Your task to perform on an android device: Check the weather Image 0: 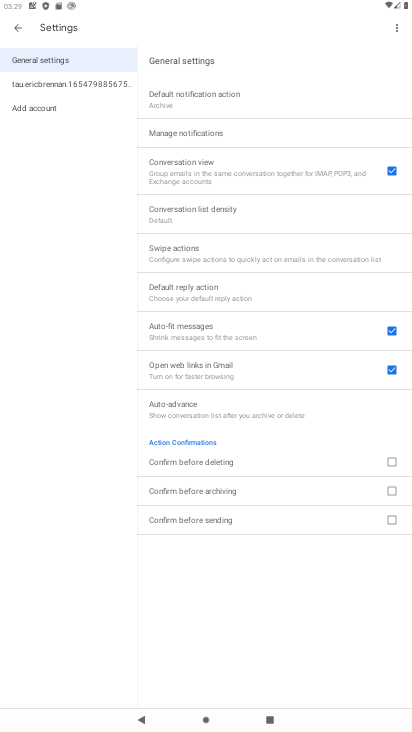
Step 0: press home button
Your task to perform on an android device: Check the weather Image 1: 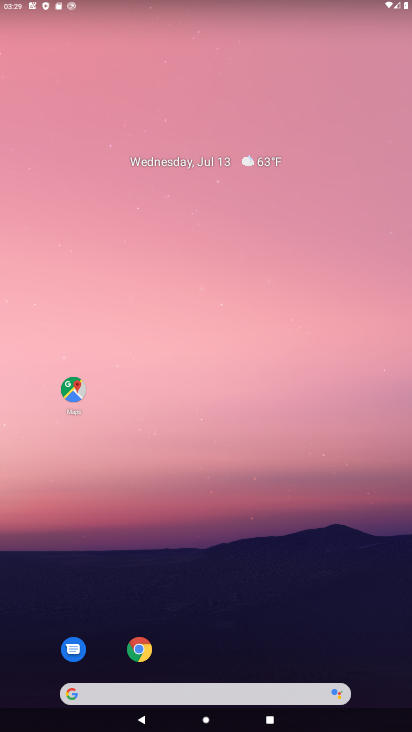
Step 1: click (147, 690)
Your task to perform on an android device: Check the weather Image 2: 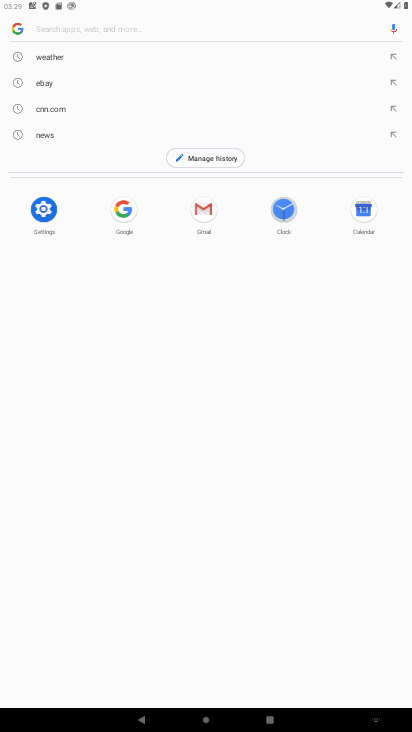
Step 2: type "weather"
Your task to perform on an android device: Check the weather Image 3: 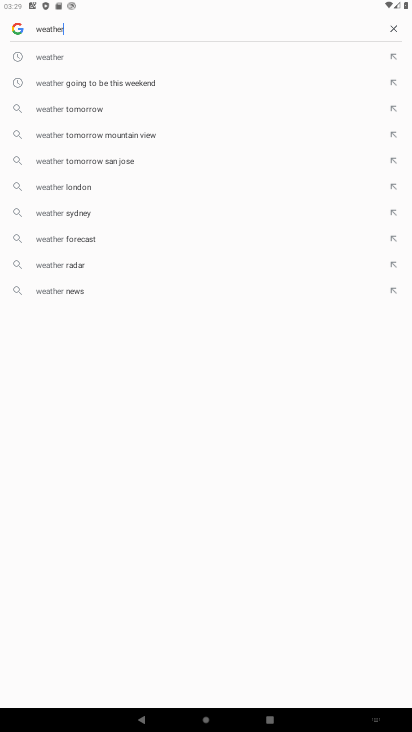
Step 3: click (86, 58)
Your task to perform on an android device: Check the weather Image 4: 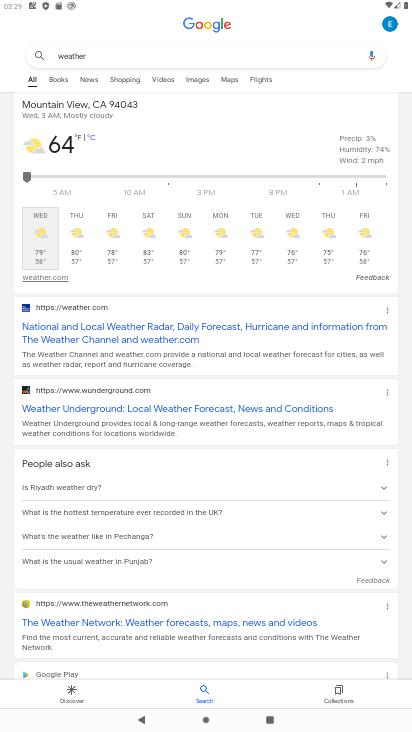
Step 4: task complete